Your task to perform on an android device: open app "The Home Depot" (install if not already installed) and go to login screen Image 0: 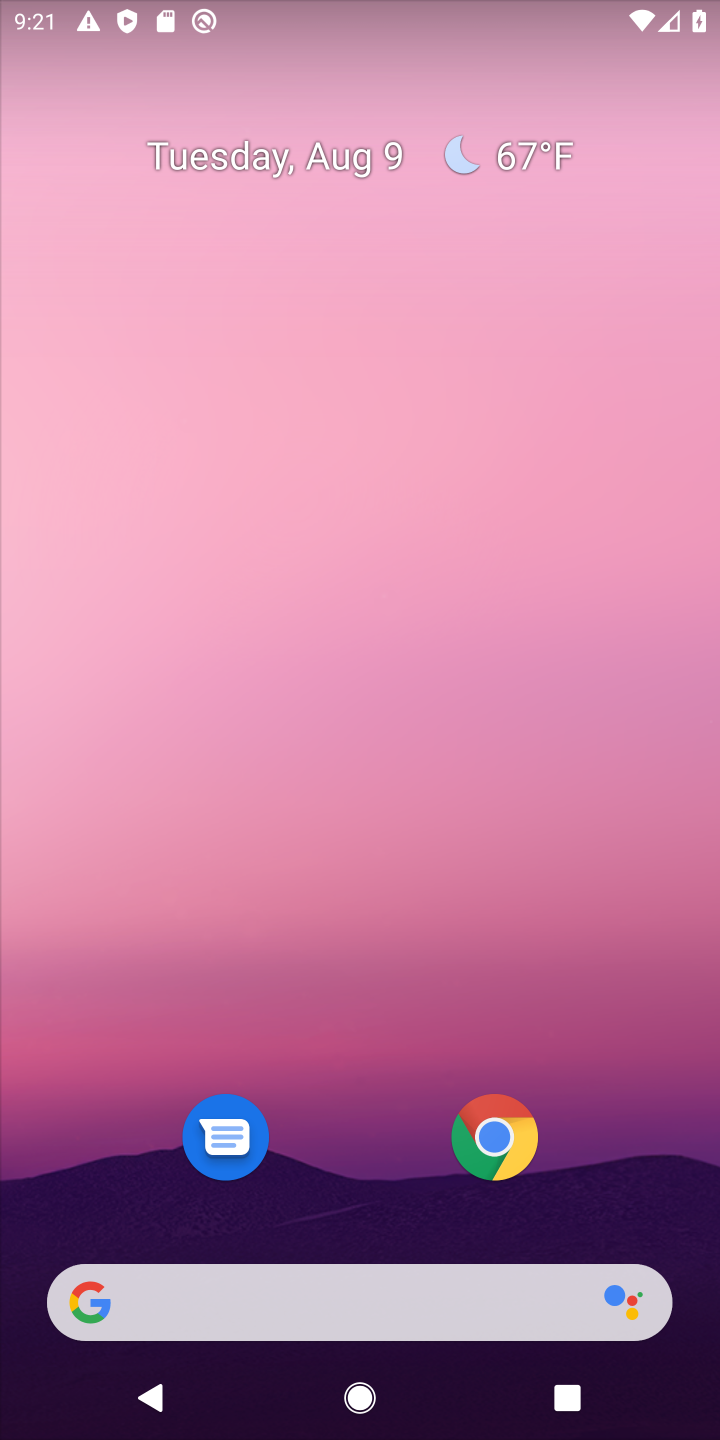
Step 0: drag from (629, 1197) to (269, 16)
Your task to perform on an android device: open app "The Home Depot" (install if not already installed) and go to login screen Image 1: 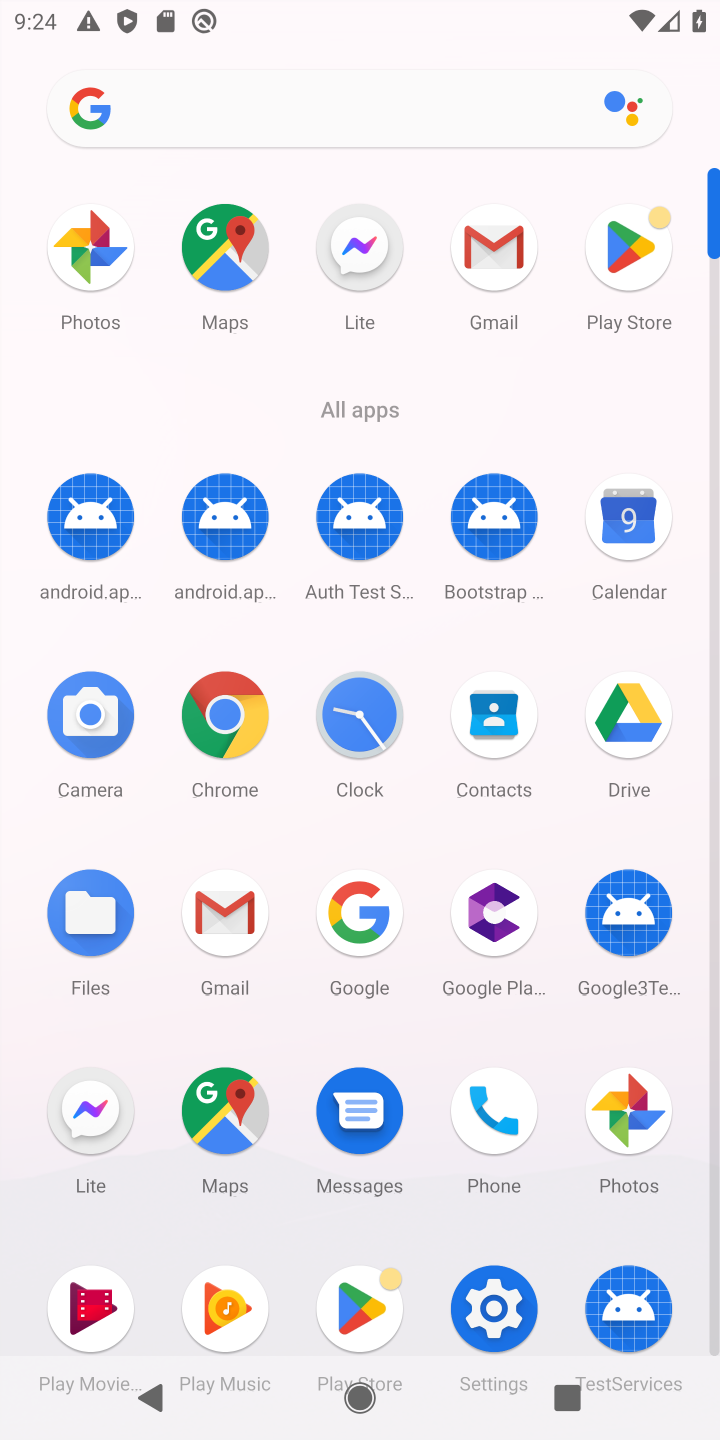
Step 1: click (622, 270)
Your task to perform on an android device: open app "The Home Depot" (install if not already installed) and go to login screen Image 2: 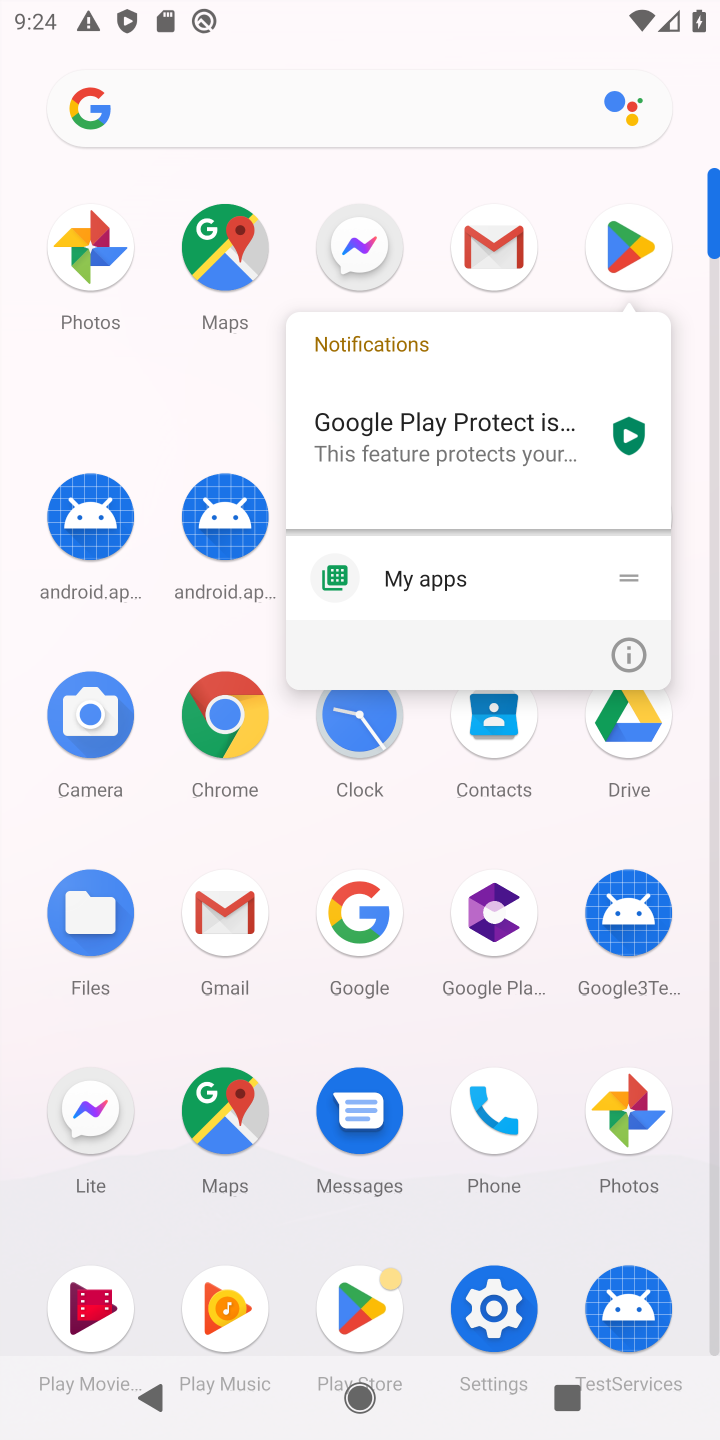
Step 2: click (622, 270)
Your task to perform on an android device: open app "The Home Depot" (install if not already installed) and go to login screen Image 3: 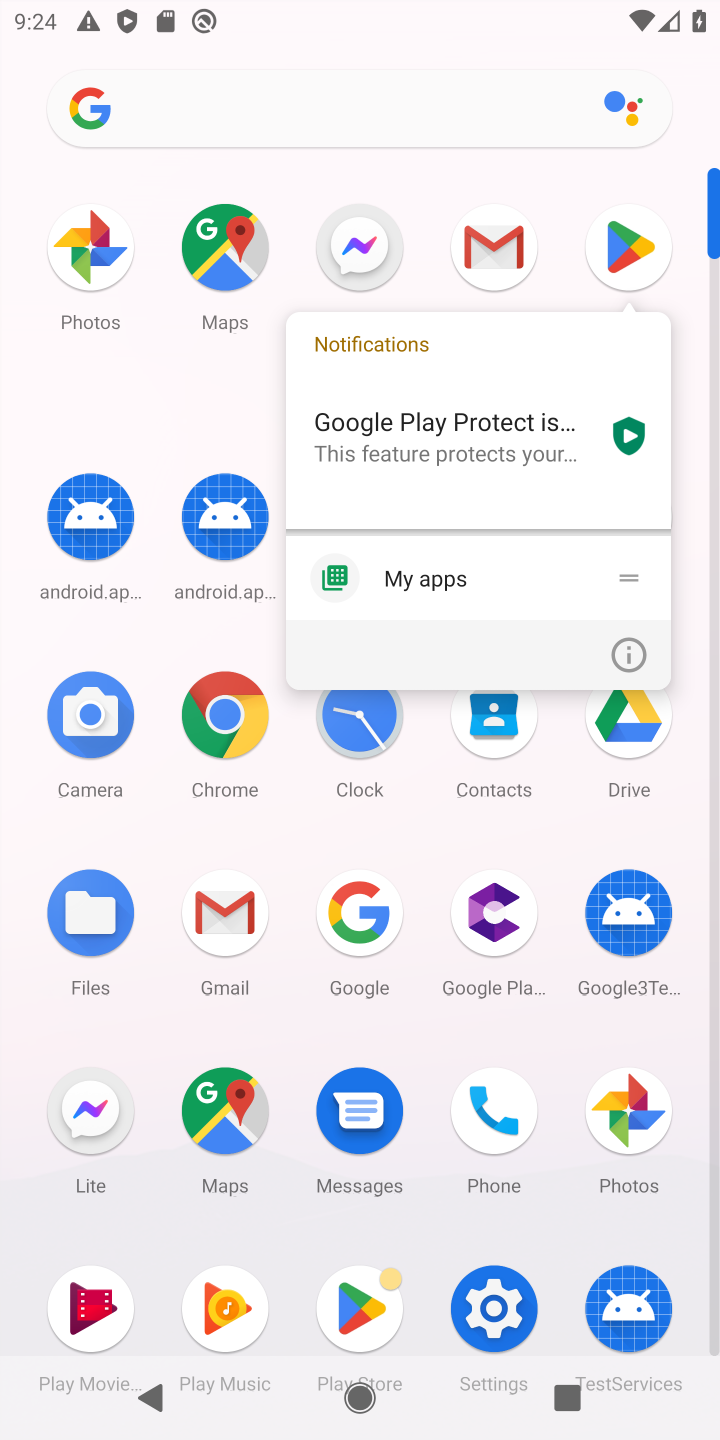
Step 3: click (622, 266)
Your task to perform on an android device: open app "The Home Depot" (install if not already installed) and go to login screen Image 4: 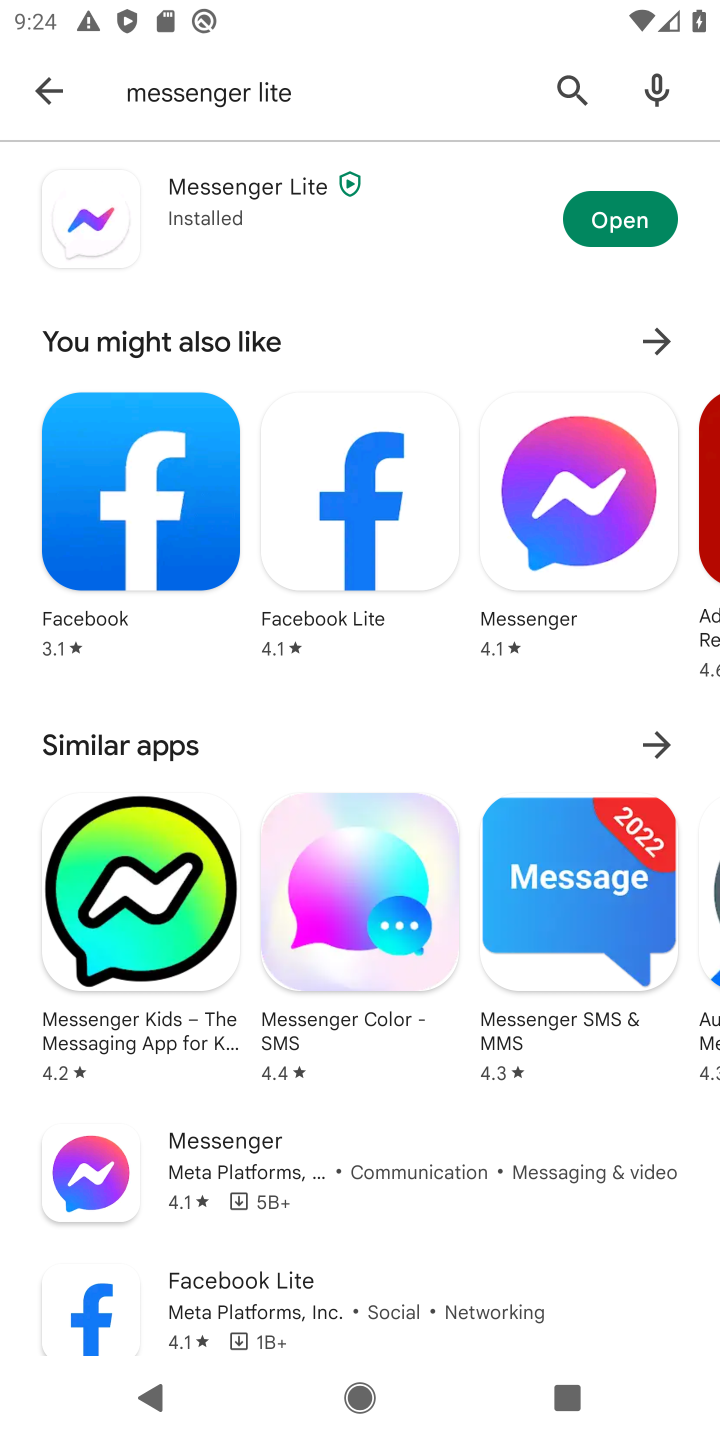
Step 4: press back button
Your task to perform on an android device: open app "The Home Depot" (install if not already installed) and go to login screen Image 5: 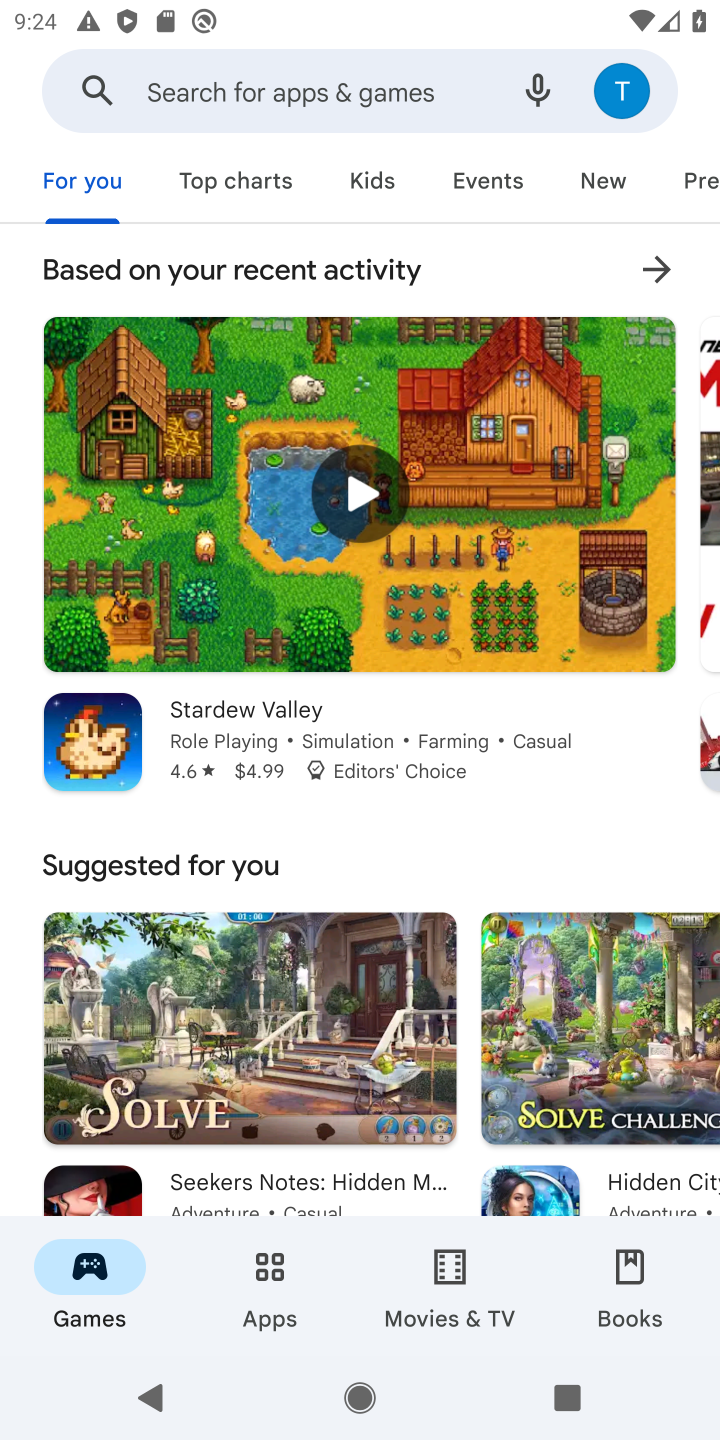
Step 5: click (284, 103)
Your task to perform on an android device: open app "The Home Depot" (install if not already installed) and go to login screen Image 6: 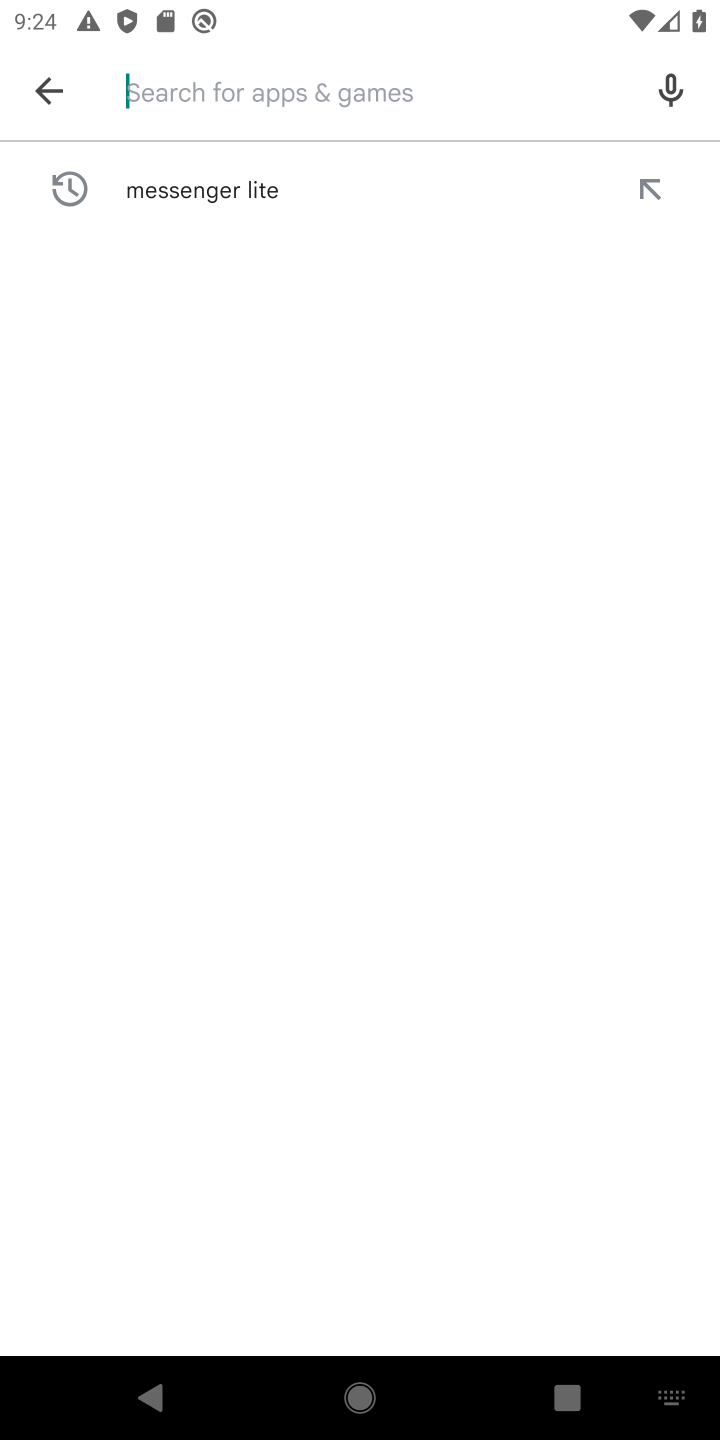
Step 6: type "The Home Depot"
Your task to perform on an android device: open app "The Home Depot" (install if not already installed) and go to login screen Image 7: 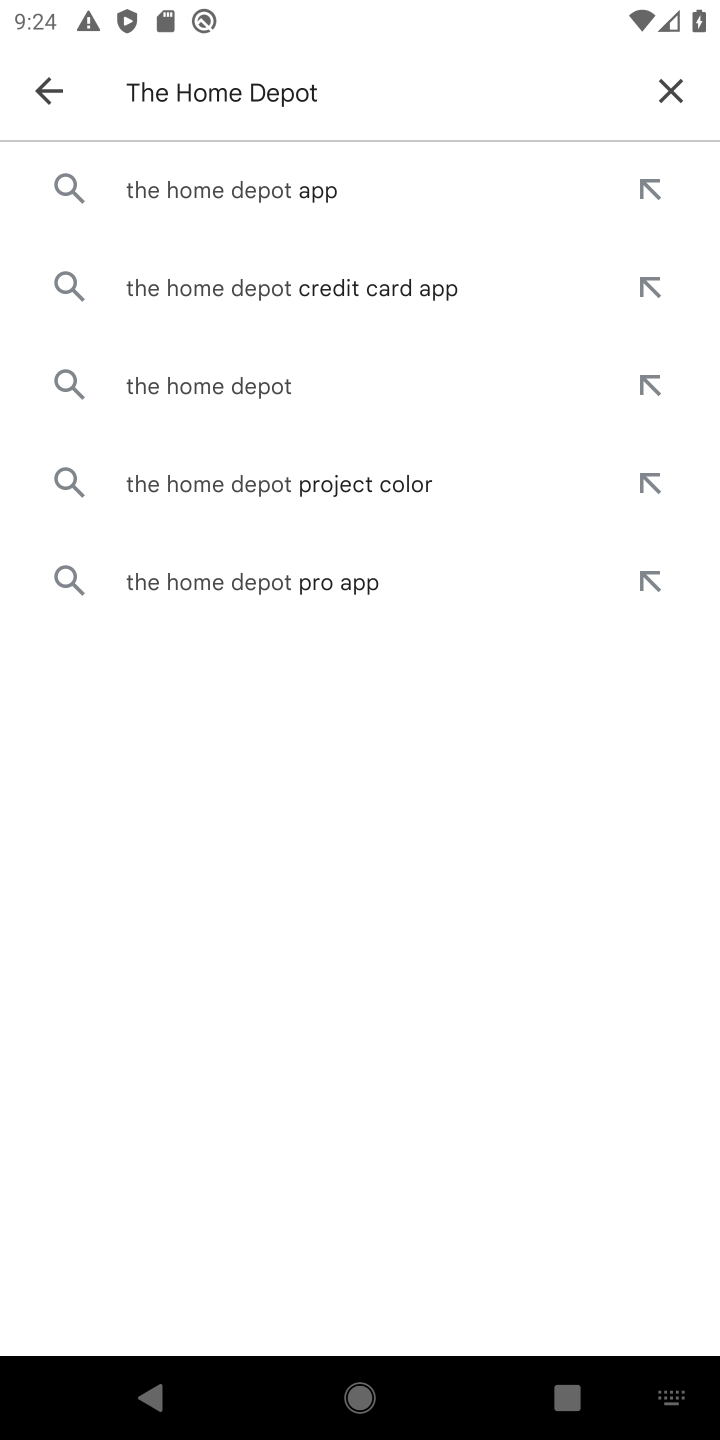
Step 7: click (267, 199)
Your task to perform on an android device: open app "The Home Depot" (install if not already installed) and go to login screen Image 8: 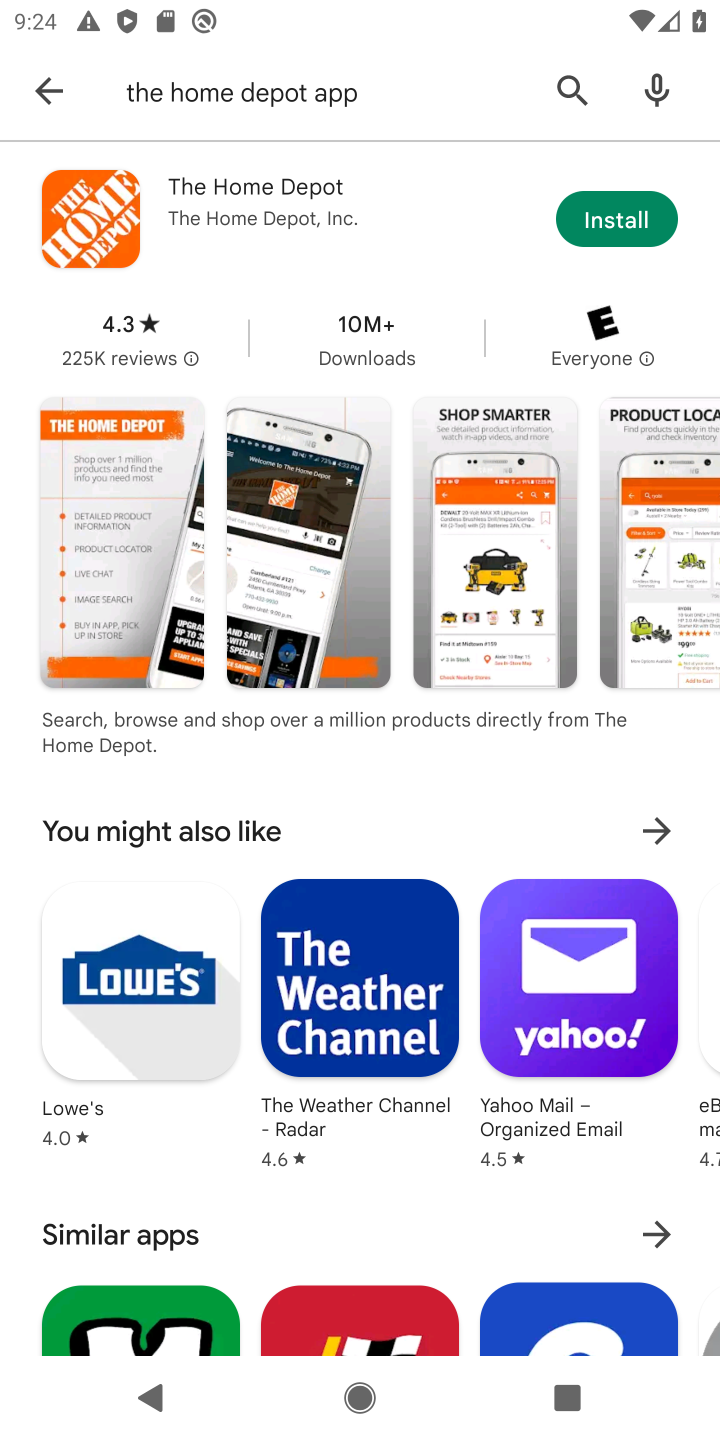
Step 8: task complete